Your task to perform on an android device: Open internet settings Image 0: 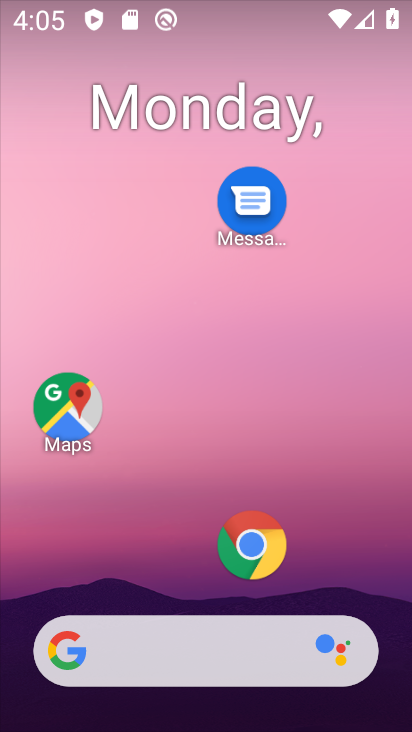
Step 0: drag from (225, 198) to (238, 91)
Your task to perform on an android device: Open internet settings Image 1: 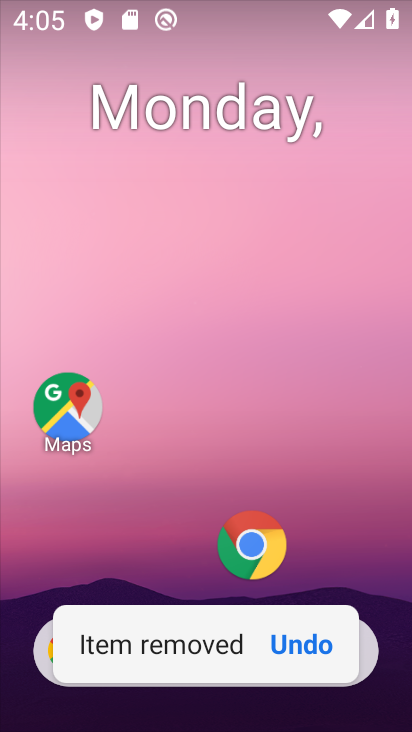
Step 1: click (232, 482)
Your task to perform on an android device: Open internet settings Image 2: 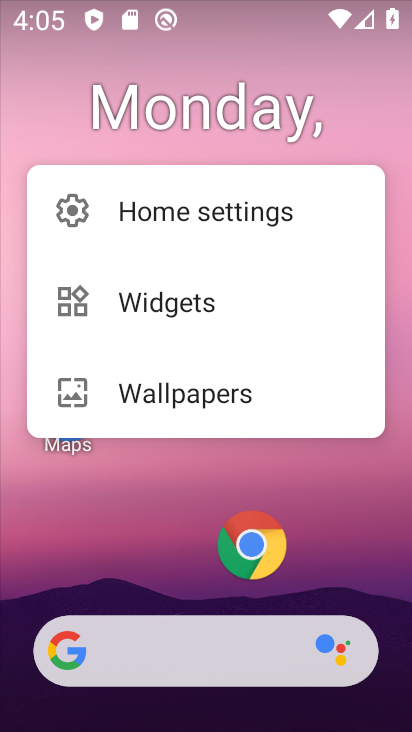
Step 2: drag from (219, 469) to (262, 103)
Your task to perform on an android device: Open internet settings Image 3: 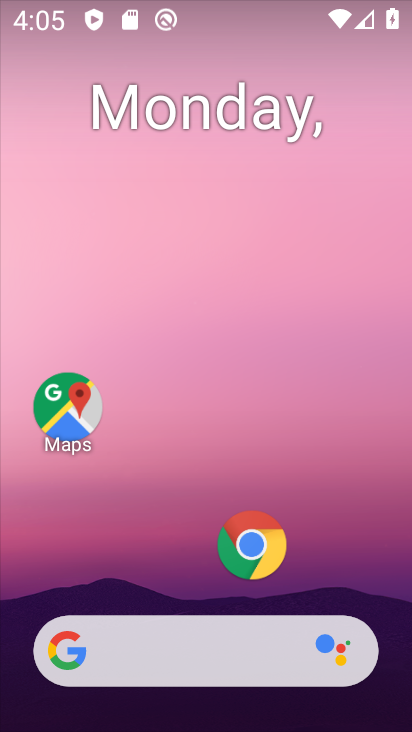
Step 3: drag from (196, 568) to (249, 136)
Your task to perform on an android device: Open internet settings Image 4: 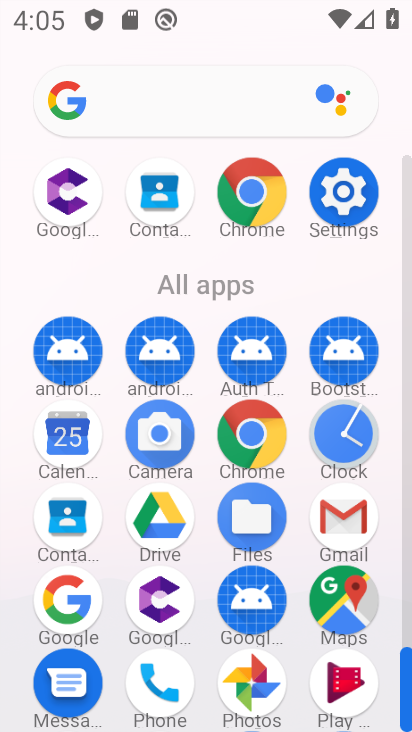
Step 4: click (346, 192)
Your task to perform on an android device: Open internet settings Image 5: 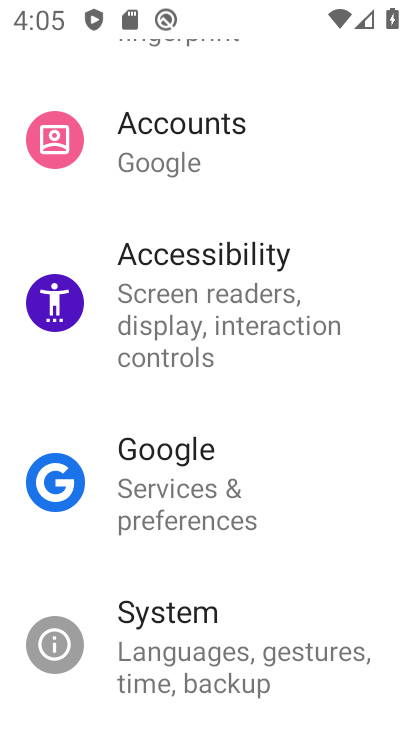
Step 5: drag from (231, 162) to (256, 633)
Your task to perform on an android device: Open internet settings Image 6: 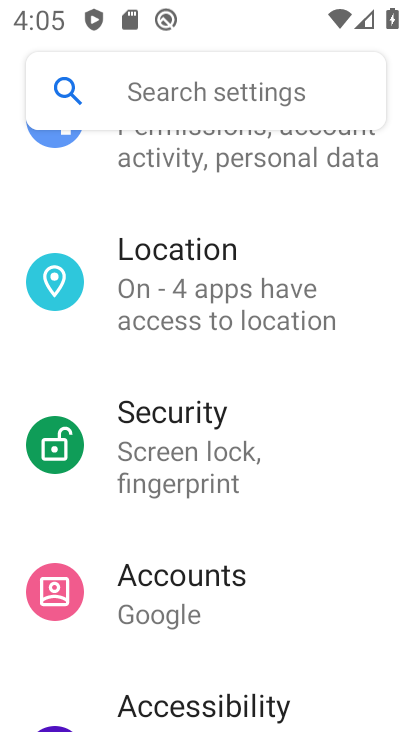
Step 6: drag from (264, 179) to (245, 654)
Your task to perform on an android device: Open internet settings Image 7: 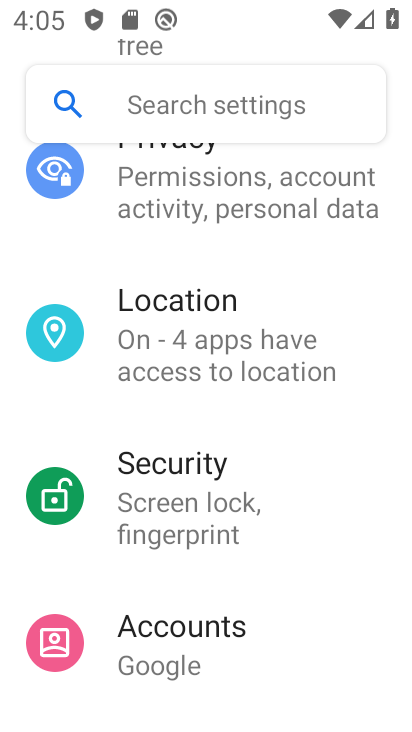
Step 7: drag from (252, 339) to (247, 692)
Your task to perform on an android device: Open internet settings Image 8: 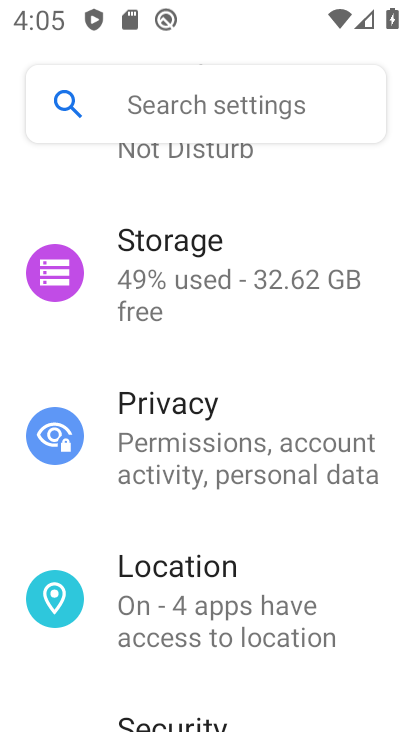
Step 8: drag from (260, 161) to (229, 615)
Your task to perform on an android device: Open internet settings Image 9: 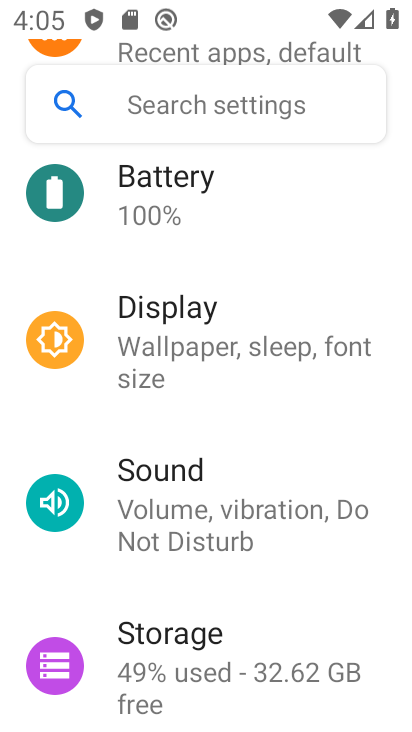
Step 9: drag from (199, 200) to (164, 730)
Your task to perform on an android device: Open internet settings Image 10: 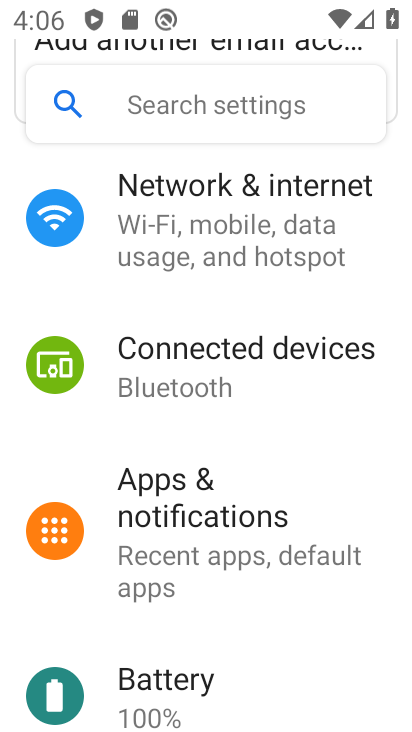
Step 10: click (234, 251)
Your task to perform on an android device: Open internet settings Image 11: 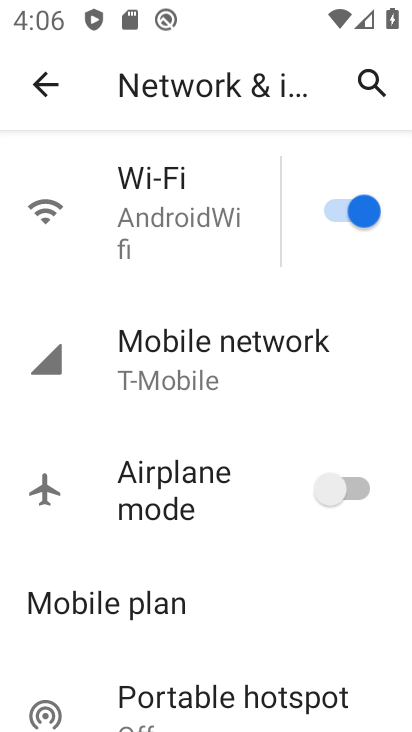
Step 11: task complete